Your task to perform on an android device: Open internet settings Image 0: 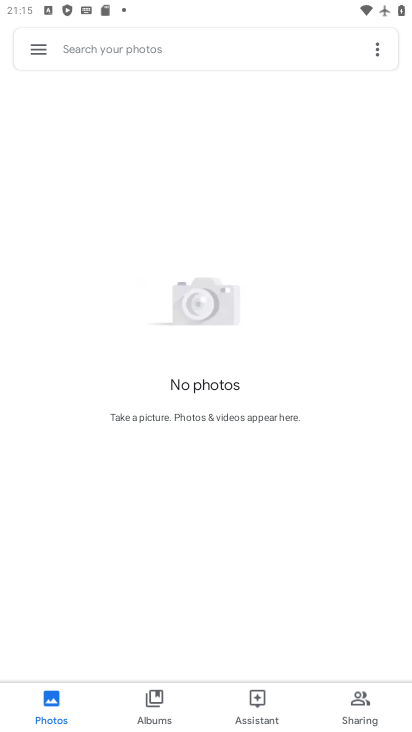
Step 0: press home button
Your task to perform on an android device: Open internet settings Image 1: 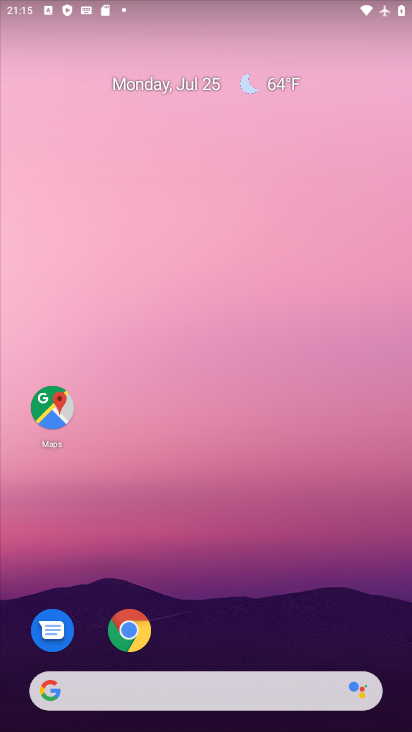
Step 1: drag from (333, 634) to (324, 278)
Your task to perform on an android device: Open internet settings Image 2: 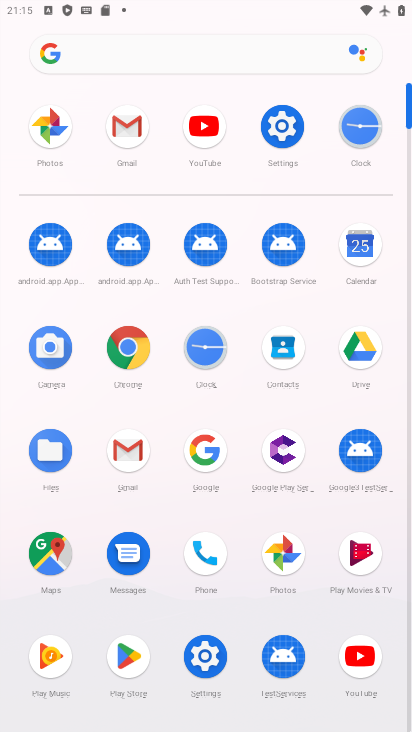
Step 2: click (206, 650)
Your task to perform on an android device: Open internet settings Image 3: 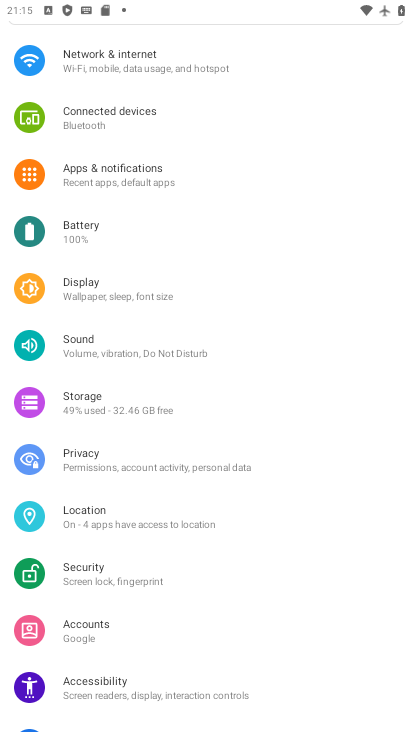
Step 3: click (88, 59)
Your task to perform on an android device: Open internet settings Image 4: 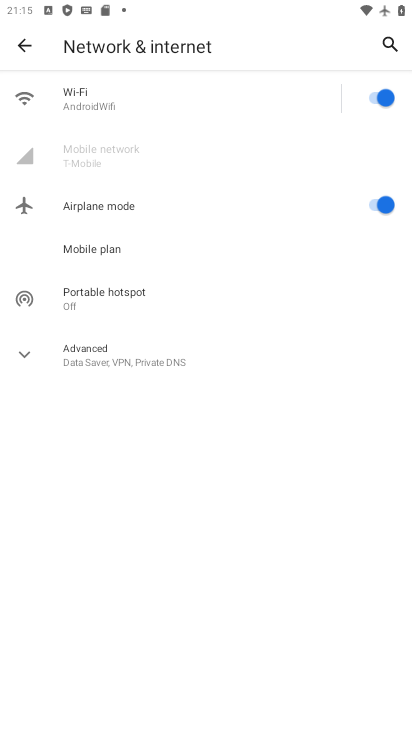
Step 4: click (79, 106)
Your task to perform on an android device: Open internet settings Image 5: 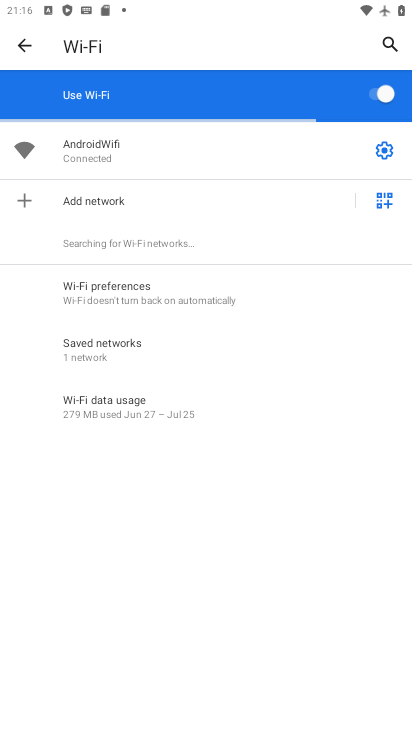
Step 5: click (379, 151)
Your task to perform on an android device: Open internet settings Image 6: 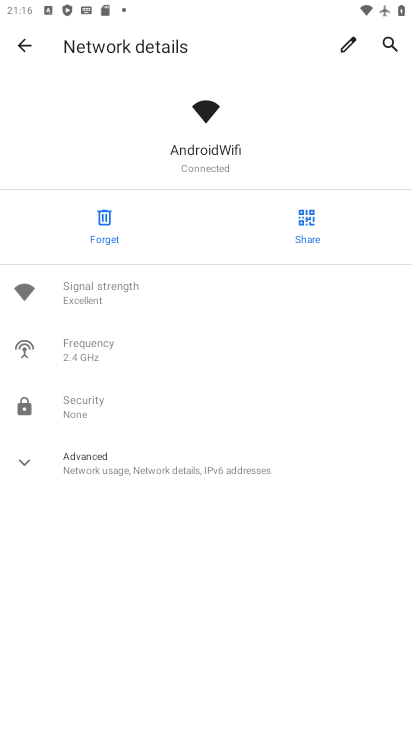
Step 6: task complete